Your task to perform on an android device: Open sound settings Image 0: 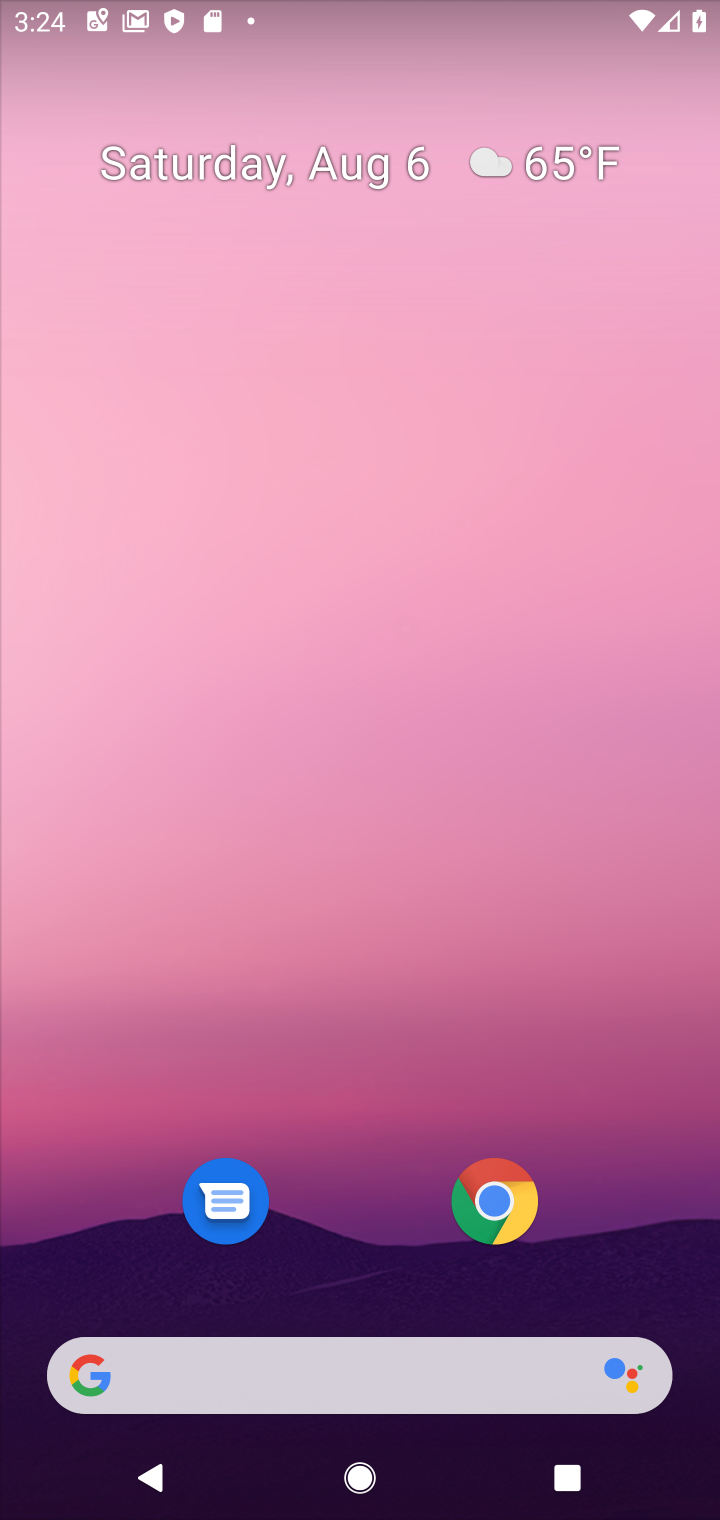
Step 0: drag from (474, 987) to (458, 319)
Your task to perform on an android device: Open sound settings Image 1: 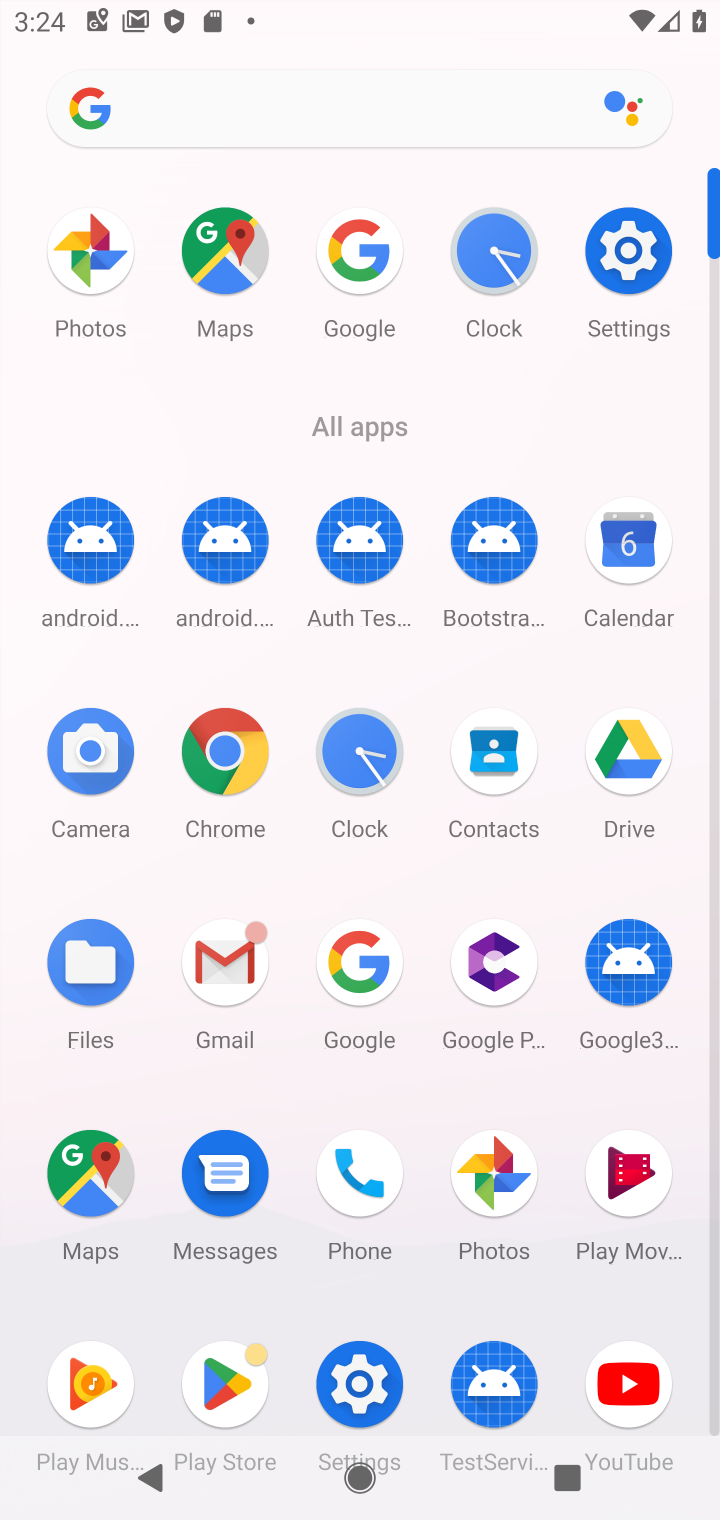
Step 1: click (624, 239)
Your task to perform on an android device: Open sound settings Image 2: 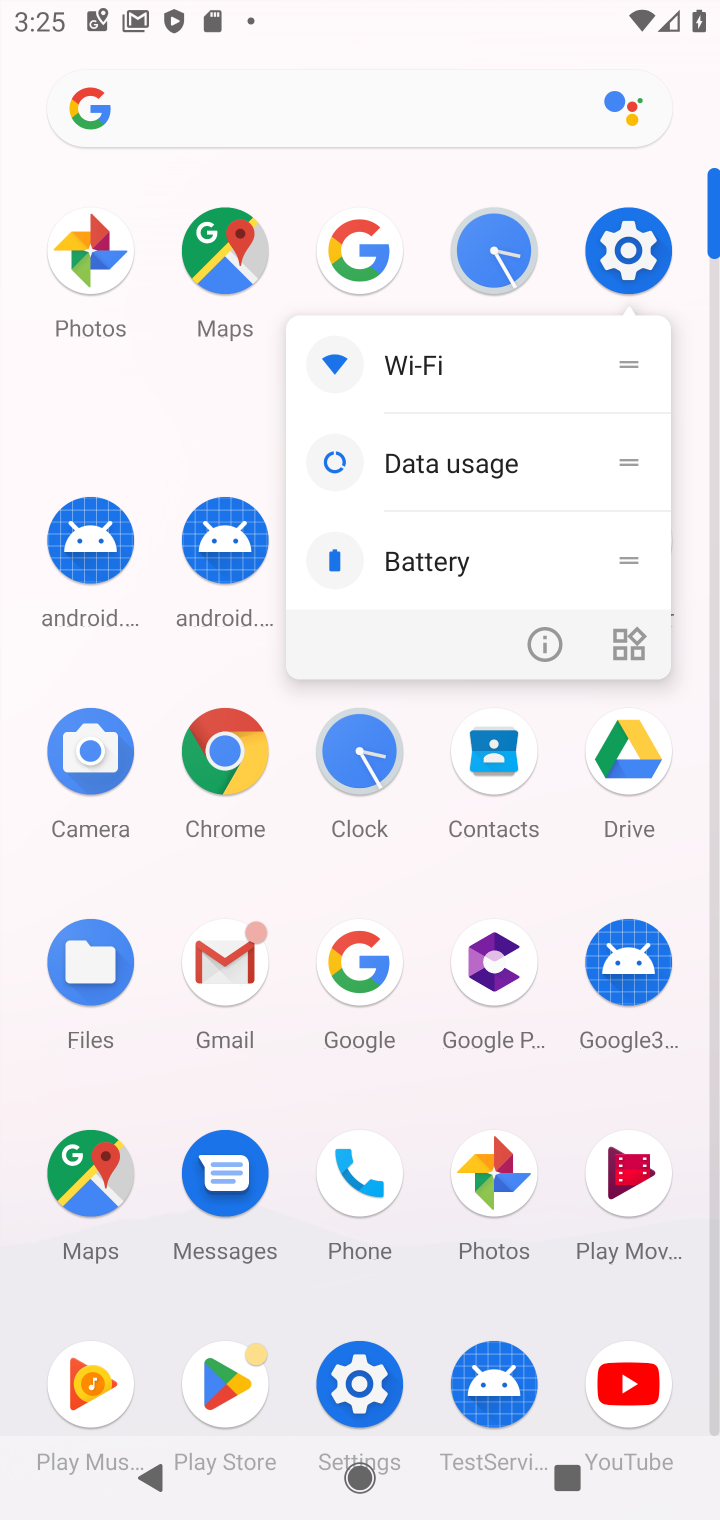
Step 2: click (627, 237)
Your task to perform on an android device: Open sound settings Image 3: 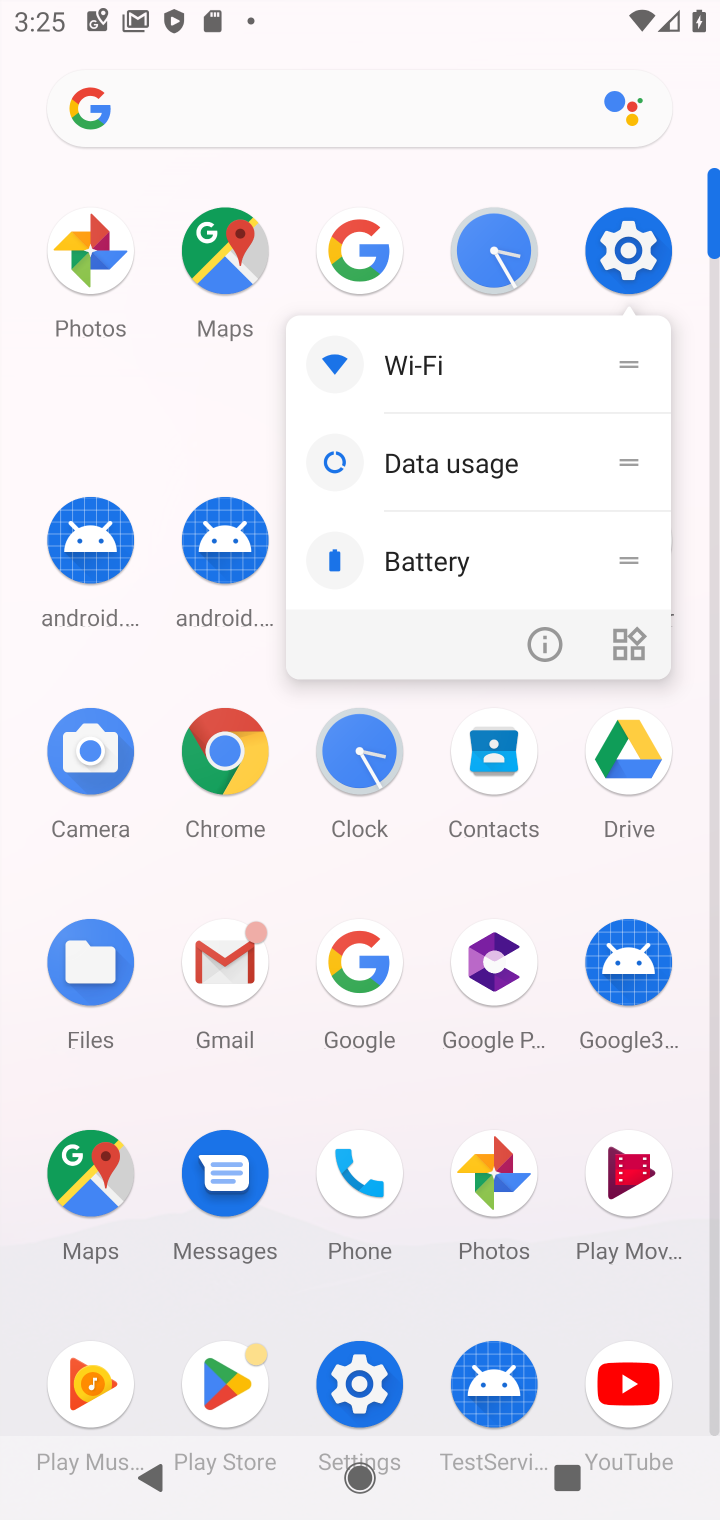
Step 3: click (609, 282)
Your task to perform on an android device: Open sound settings Image 4: 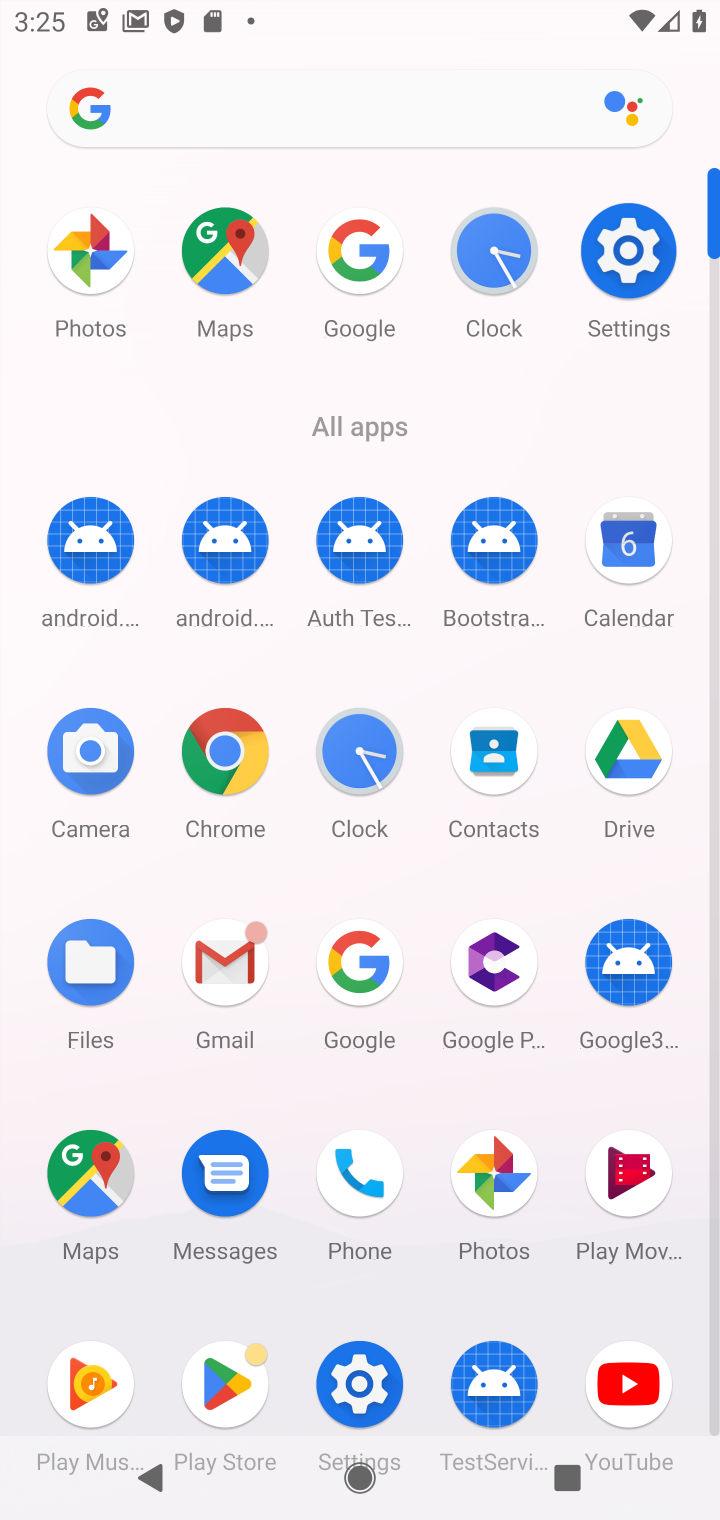
Step 4: click (609, 282)
Your task to perform on an android device: Open sound settings Image 5: 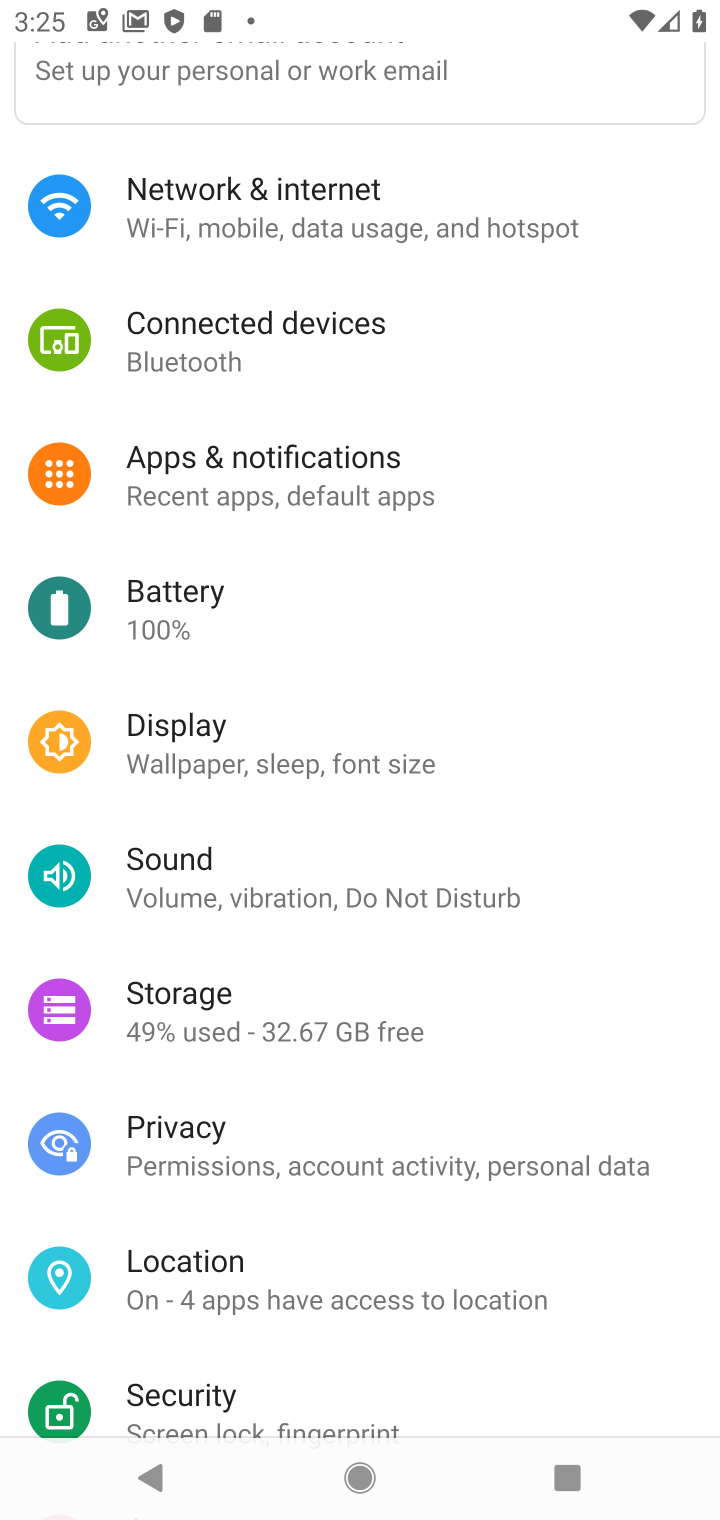
Step 5: click (313, 881)
Your task to perform on an android device: Open sound settings Image 6: 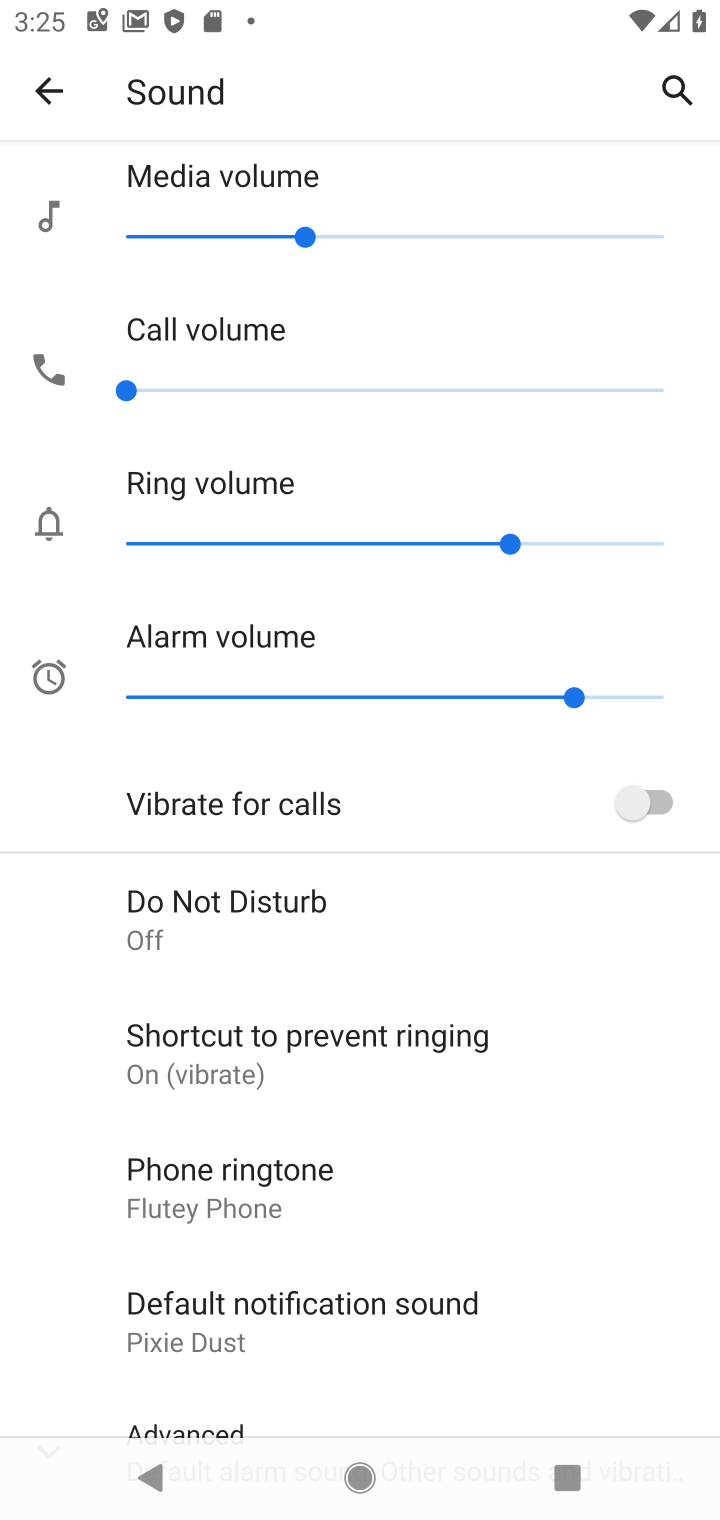
Step 6: task complete